Your task to perform on an android device: visit the assistant section in the google photos Image 0: 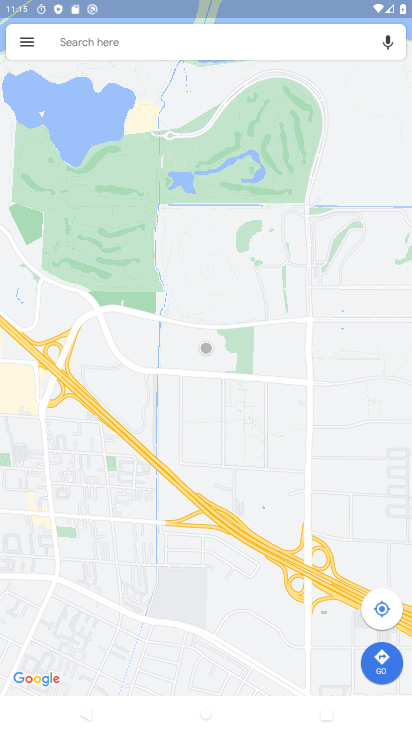
Step 0: press home button
Your task to perform on an android device: visit the assistant section in the google photos Image 1: 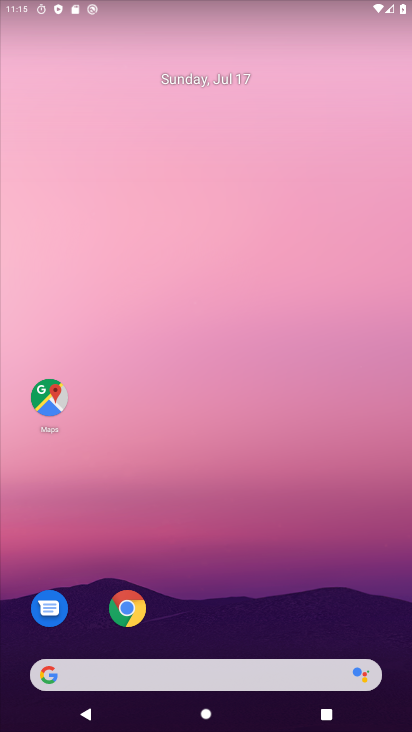
Step 1: drag from (280, 606) to (263, 48)
Your task to perform on an android device: visit the assistant section in the google photos Image 2: 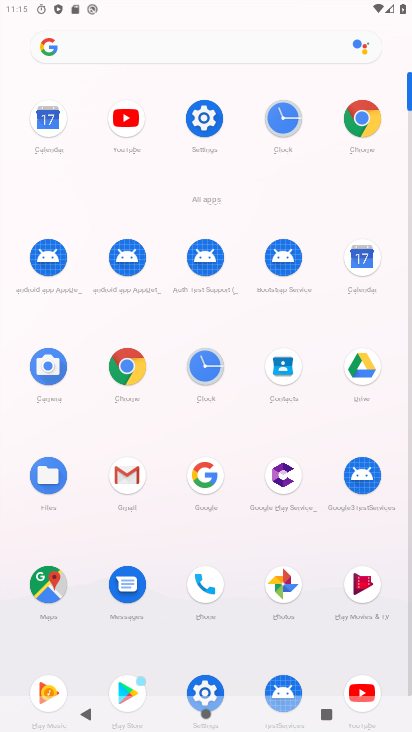
Step 2: click (278, 595)
Your task to perform on an android device: visit the assistant section in the google photos Image 3: 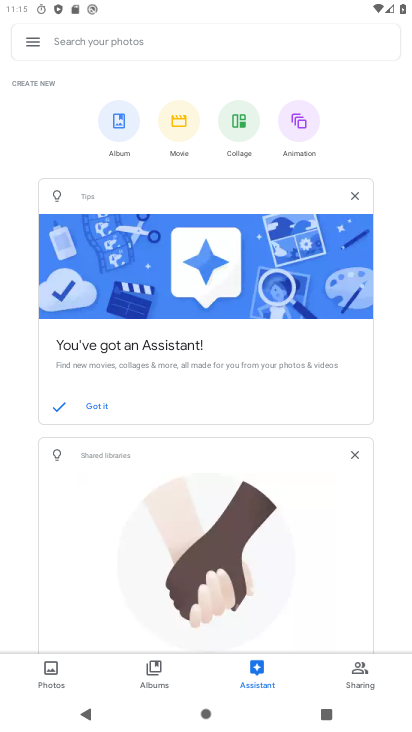
Step 3: click (256, 670)
Your task to perform on an android device: visit the assistant section in the google photos Image 4: 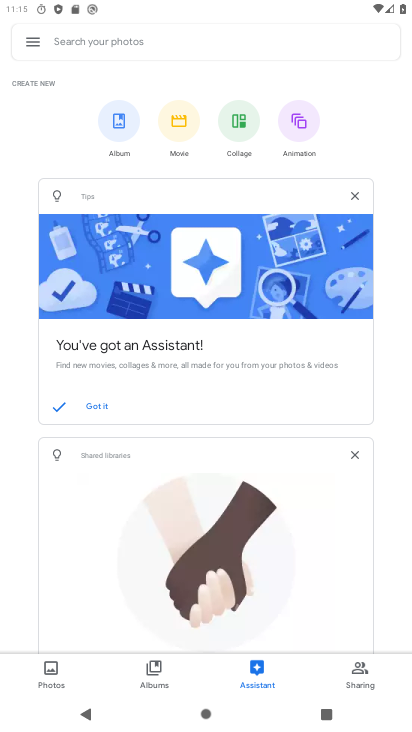
Step 4: task complete